Your task to perform on an android device: manage bookmarks in the chrome app Image 0: 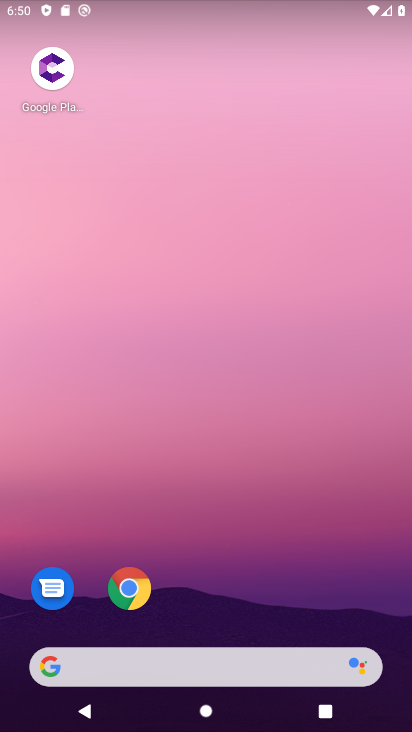
Step 0: drag from (335, 632) to (255, 0)
Your task to perform on an android device: manage bookmarks in the chrome app Image 1: 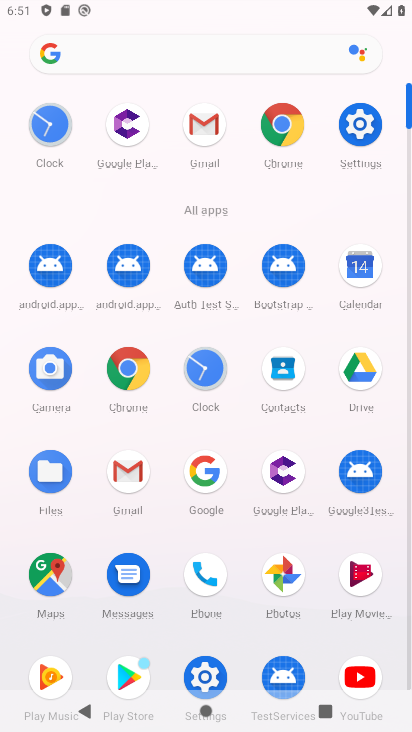
Step 1: click (136, 363)
Your task to perform on an android device: manage bookmarks in the chrome app Image 2: 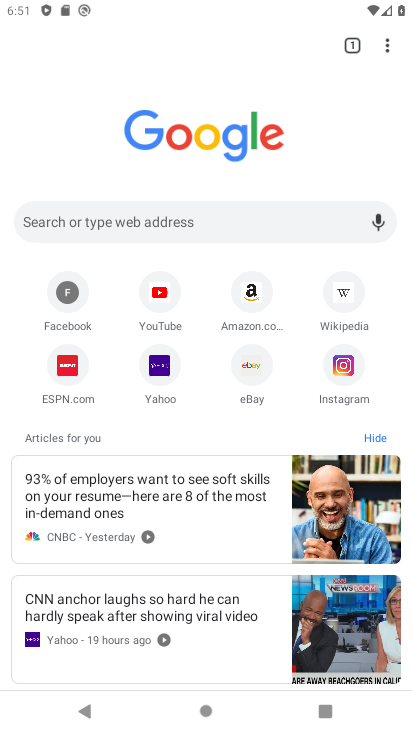
Step 2: task complete